Your task to perform on an android device: Turn on the flashlight Image 0: 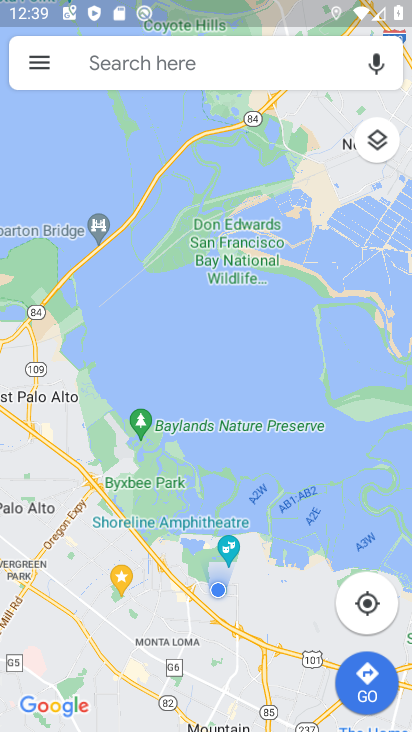
Step 0: press back button
Your task to perform on an android device: Turn on the flashlight Image 1: 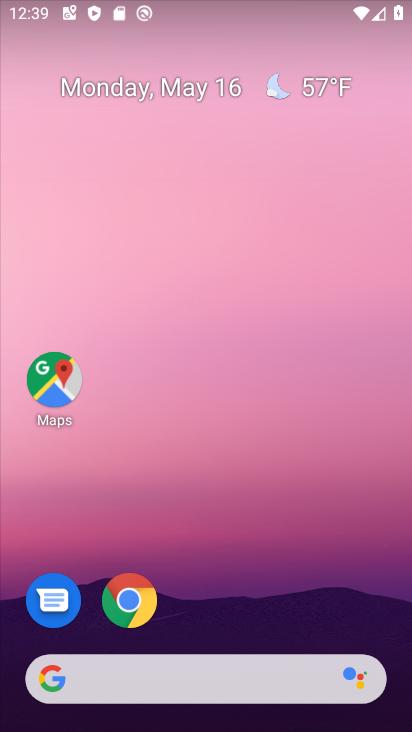
Step 1: drag from (277, 556) to (270, 71)
Your task to perform on an android device: Turn on the flashlight Image 2: 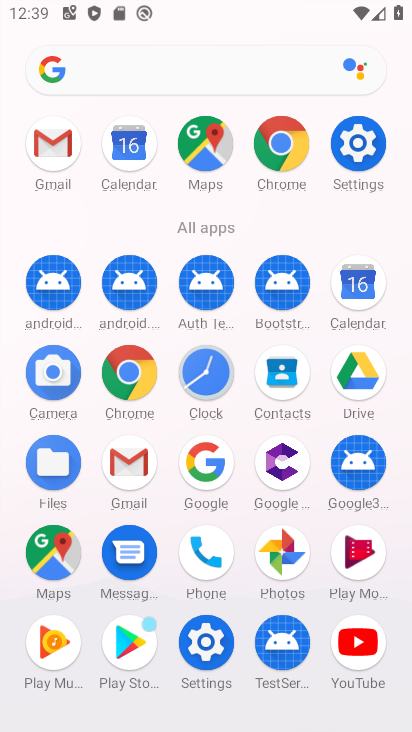
Step 2: click (353, 146)
Your task to perform on an android device: Turn on the flashlight Image 3: 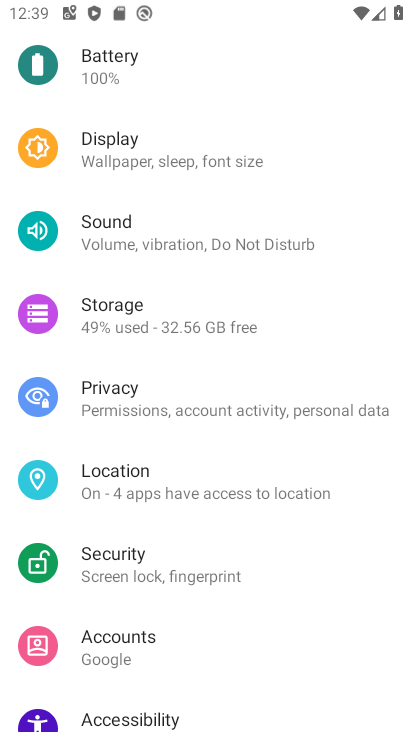
Step 3: drag from (196, 159) to (179, 716)
Your task to perform on an android device: Turn on the flashlight Image 4: 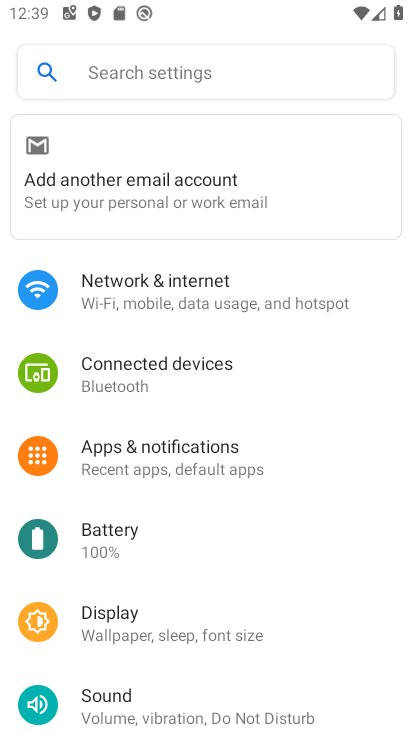
Step 4: click (108, 64)
Your task to perform on an android device: Turn on the flashlight Image 5: 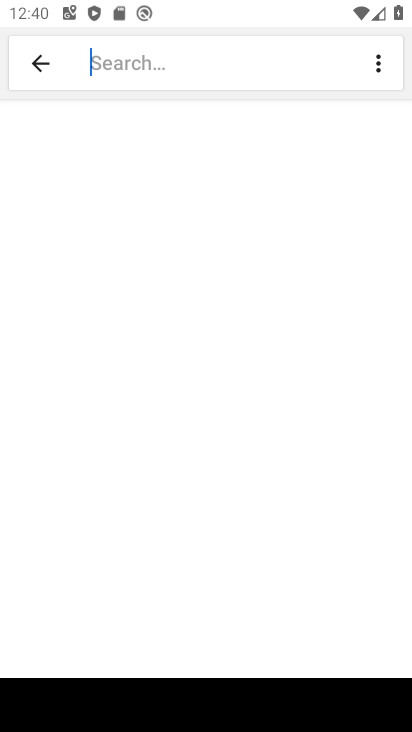
Step 5: type "flashlight"
Your task to perform on an android device: Turn on the flashlight Image 6: 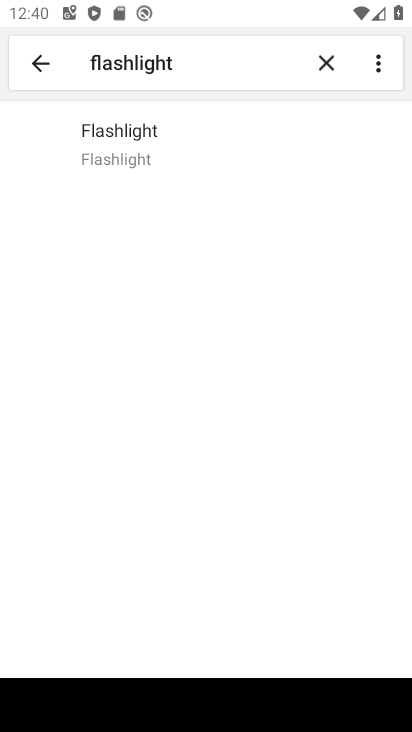
Step 6: click (124, 141)
Your task to perform on an android device: Turn on the flashlight Image 7: 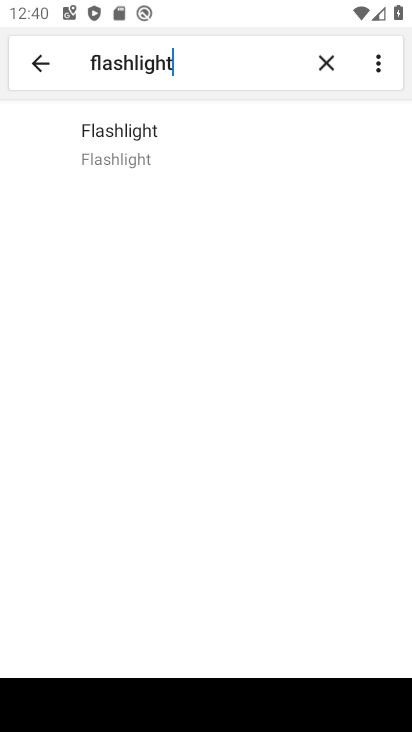
Step 7: task complete